Your task to perform on an android device: open wifi settings Image 0: 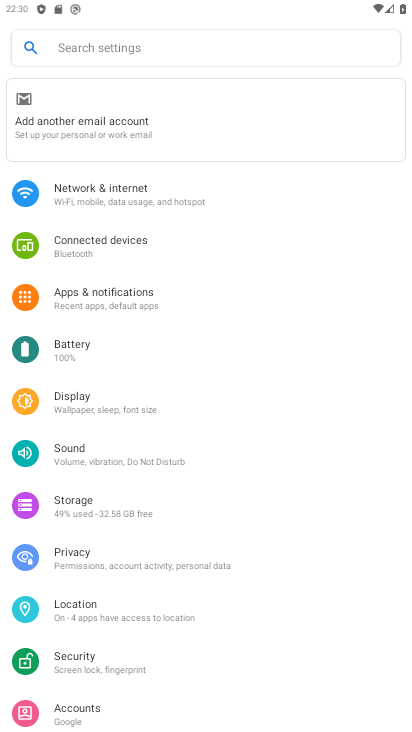
Step 0: click (233, 200)
Your task to perform on an android device: open wifi settings Image 1: 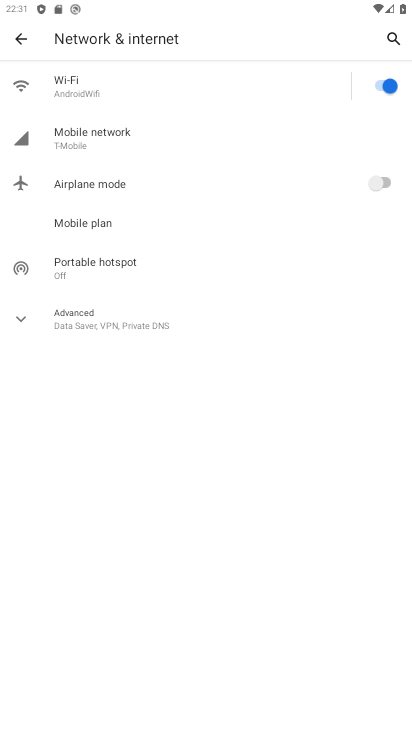
Step 1: click (140, 77)
Your task to perform on an android device: open wifi settings Image 2: 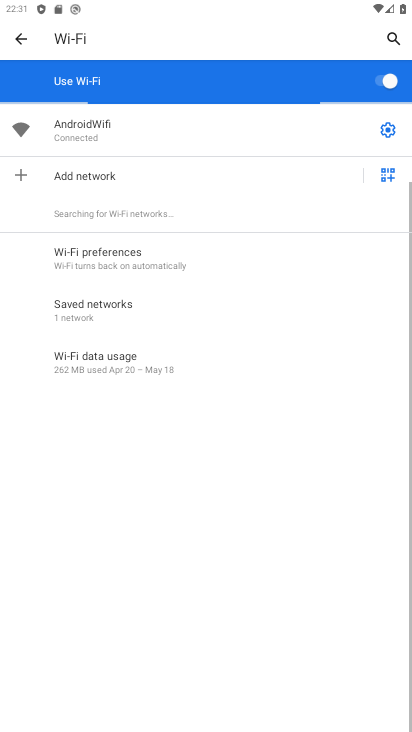
Step 2: click (392, 136)
Your task to perform on an android device: open wifi settings Image 3: 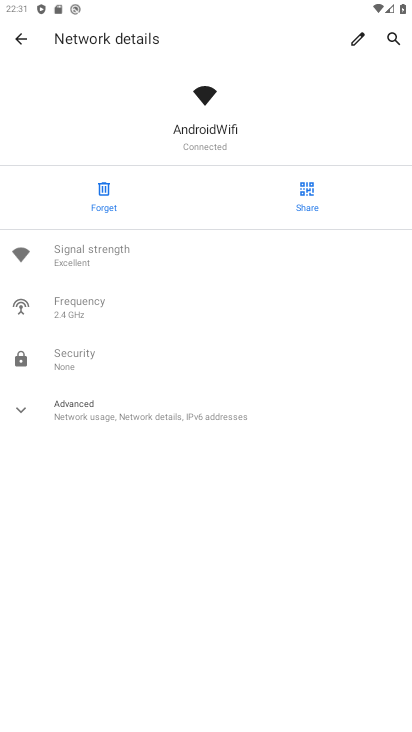
Step 3: task complete